Your task to perform on an android device: turn off location Image 0: 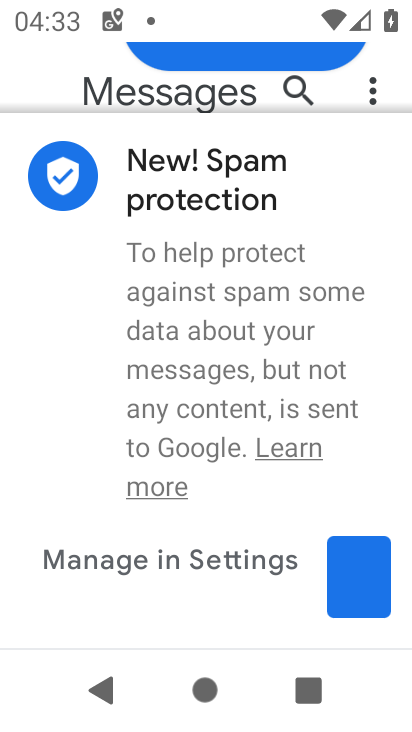
Step 0: press home button
Your task to perform on an android device: turn off location Image 1: 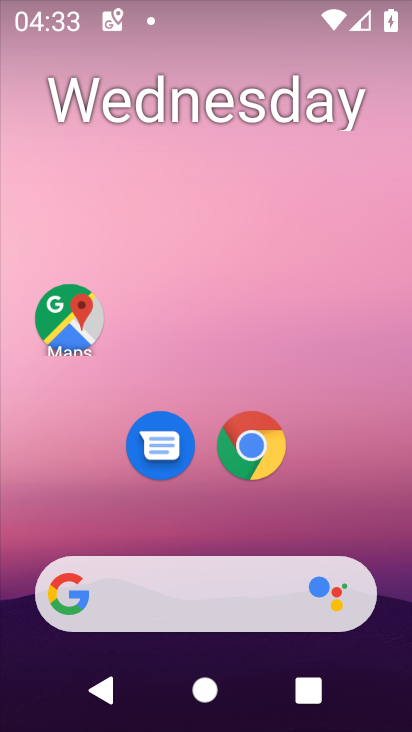
Step 1: drag from (201, 508) to (213, 118)
Your task to perform on an android device: turn off location Image 2: 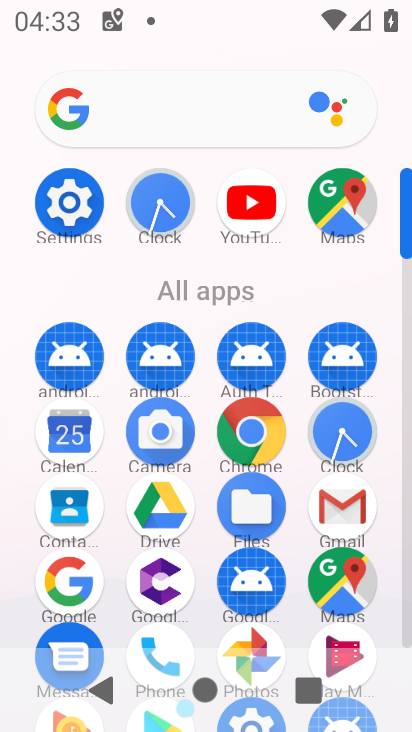
Step 2: click (61, 215)
Your task to perform on an android device: turn off location Image 3: 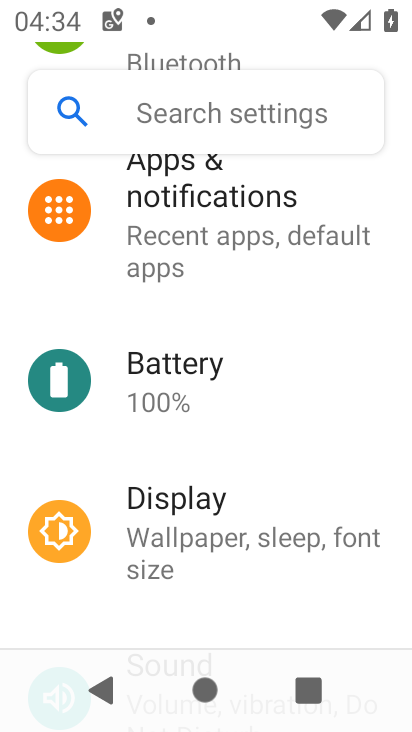
Step 3: drag from (125, 619) to (143, 93)
Your task to perform on an android device: turn off location Image 4: 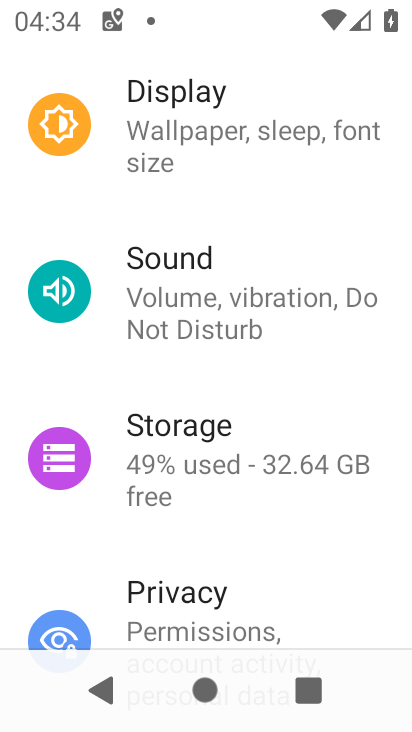
Step 4: drag from (166, 429) to (181, 130)
Your task to perform on an android device: turn off location Image 5: 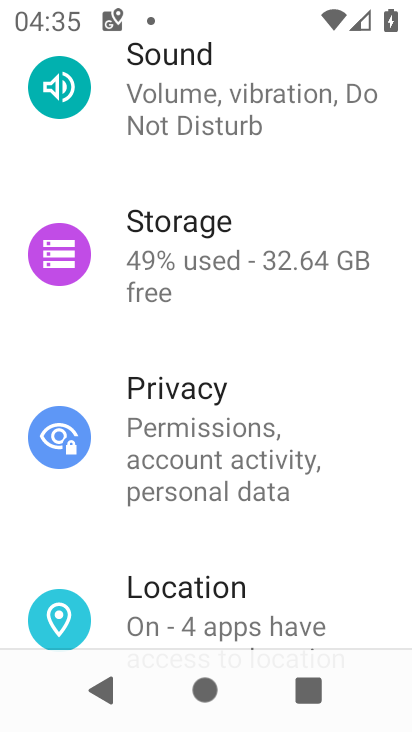
Step 5: click (190, 618)
Your task to perform on an android device: turn off location Image 6: 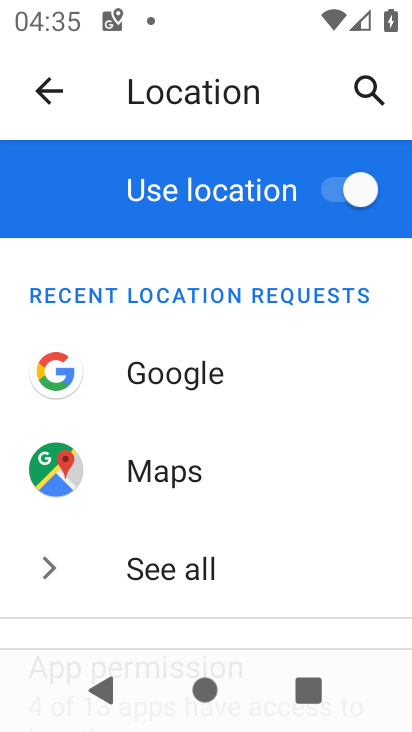
Step 6: click (330, 188)
Your task to perform on an android device: turn off location Image 7: 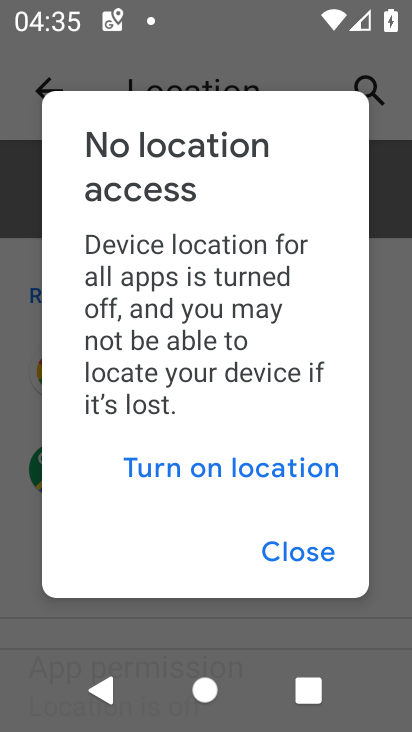
Step 7: click (331, 556)
Your task to perform on an android device: turn off location Image 8: 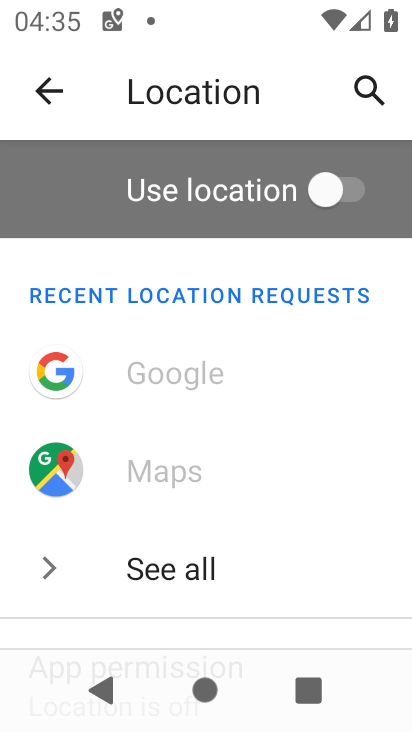
Step 8: task complete